Your task to perform on an android device: change alarm snooze length Image 0: 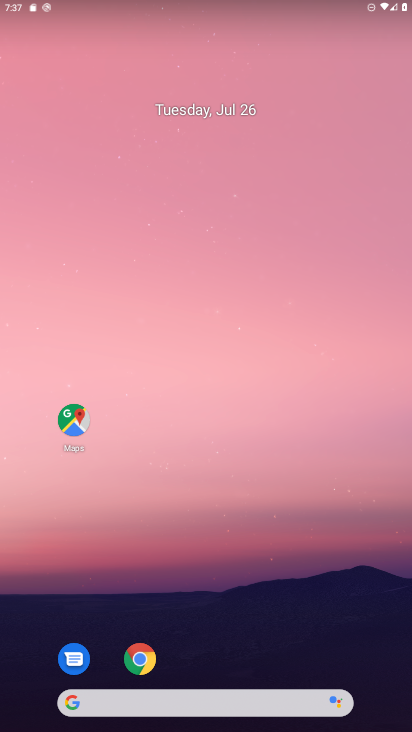
Step 0: drag from (181, 672) to (213, 65)
Your task to perform on an android device: change alarm snooze length Image 1: 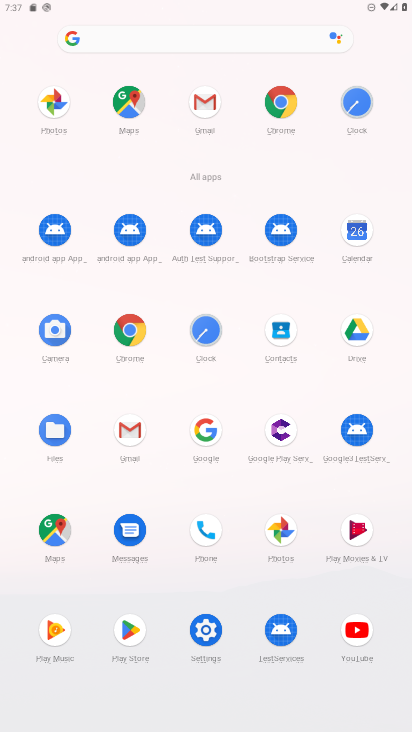
Step 1: click (197, 326)
Your task to perform on an android device: change alarm snooze length Image 2: 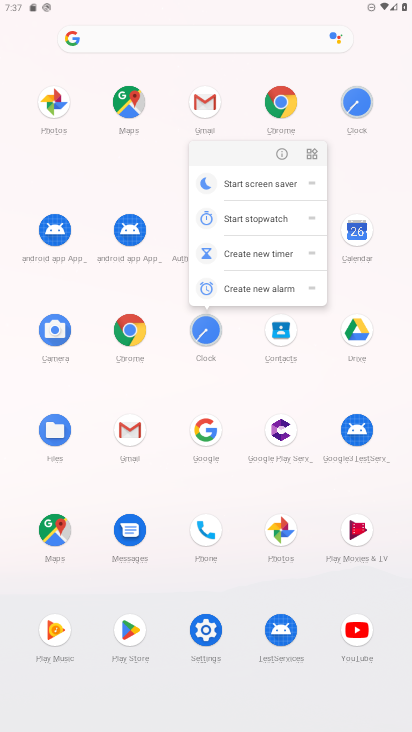
Step 2: click (281, 142)
Your task to perform on an android device: change alarm snooze length Image 3: 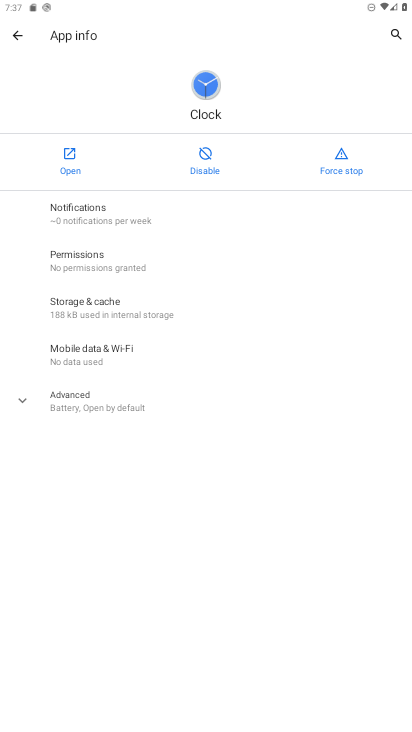
Step 3: click (68, 154)
Your task to perform on an android device: change alarm snooze length Image 4: 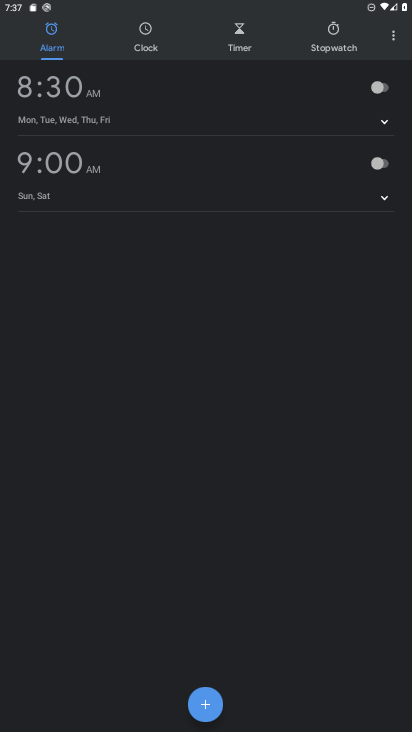
Step 4: drag from (386, 31) to (336, 64)
Your task to perform on an android device: change alarm snooze length Image 5: 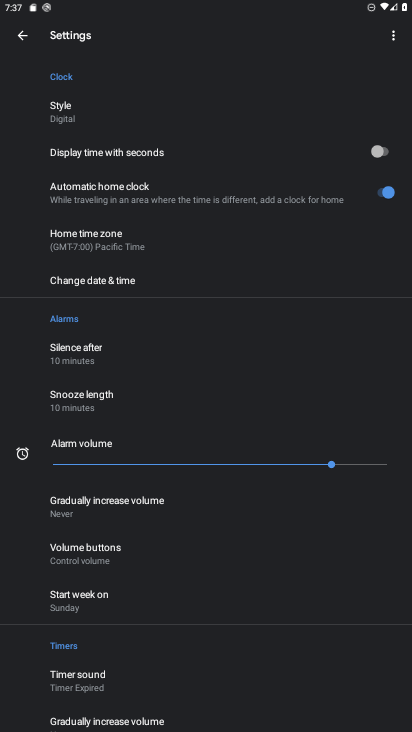
Step 5: drag from (141, 500) to (241, 209)
Your task to perform on an android device: change alarm snooze length Image 6: 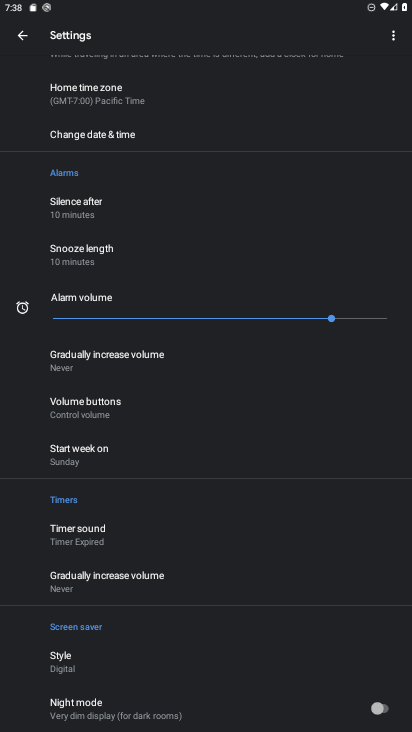
Step 6: click (119, 247)
Your task to perform on an android device: change alarm snooze length Image 7: 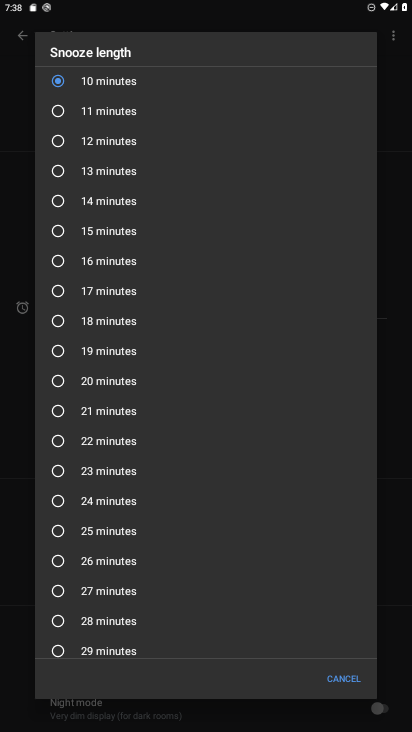
Step 7: click (94, 106)
Your task to perform on an android device: change alarm snooze length Image 8: 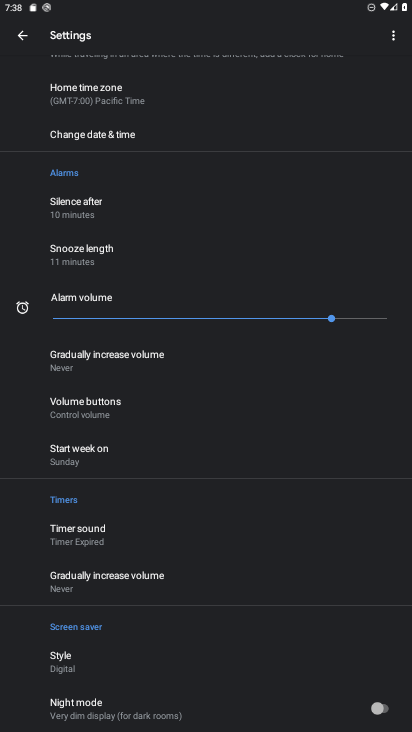
Step 8: task complete